Your task to perform on an android device: Go to ESPN.com Image 0: 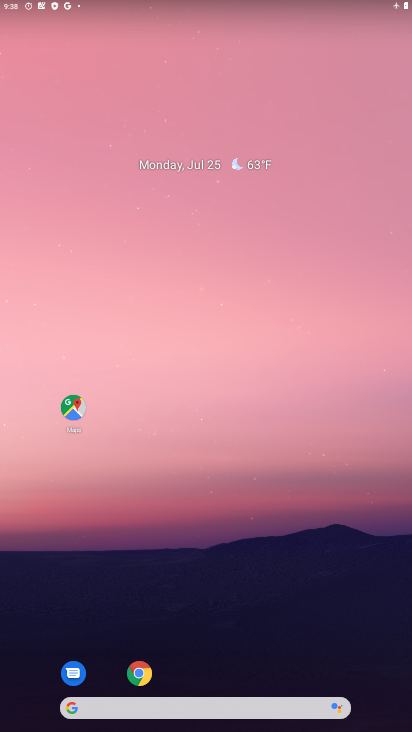
Step 0: drag from (181, 665) to (220, 159)
Your task to perform on an android device: Go to ESPN.com Image 1: 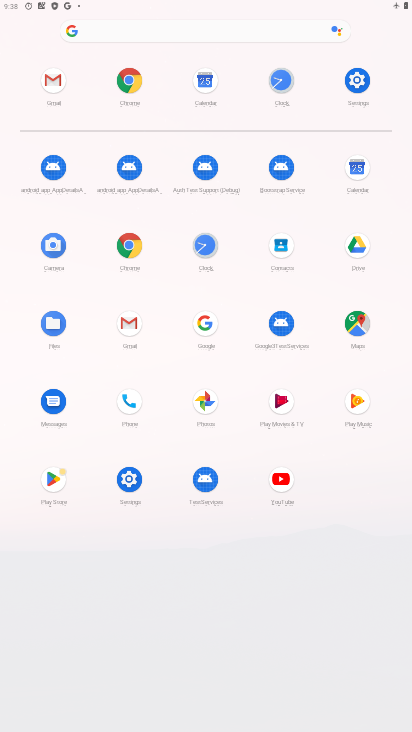
Step 1: click (126, 239)
Your task to perform on an android device: Go to ESPN.com Image 2: 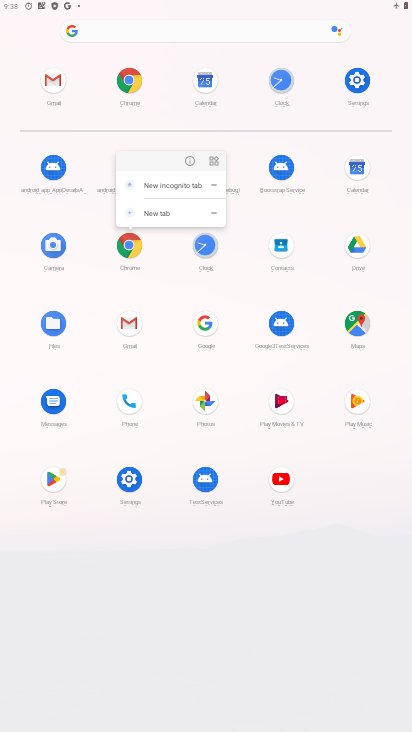
Step 2: click (187, 157)
Your task to perform on an android device: Go to ESPN.com Image 3: 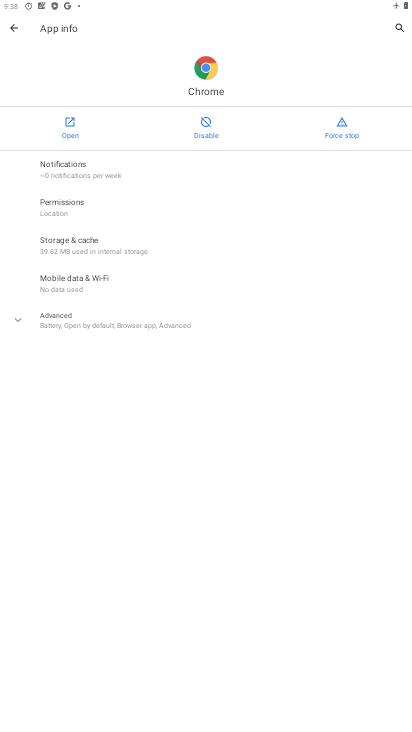
Step 3: click (72, 113)
Your task to perform on an android device: Go to ESPN.com Image 4: 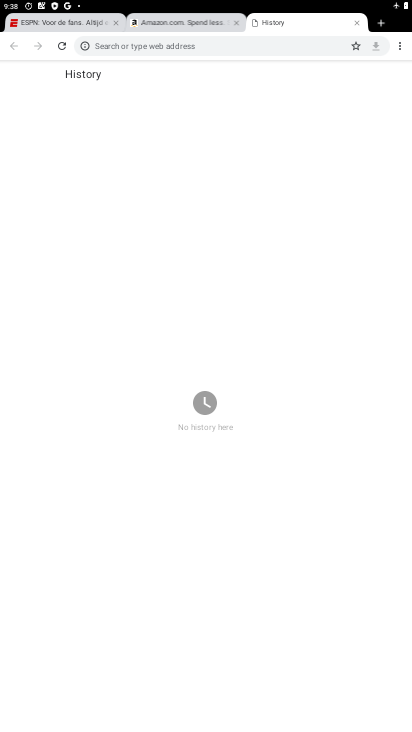
Step 4: click (206, 50)
Your task to perform on an android device: Go to ESPN.com Image 5: 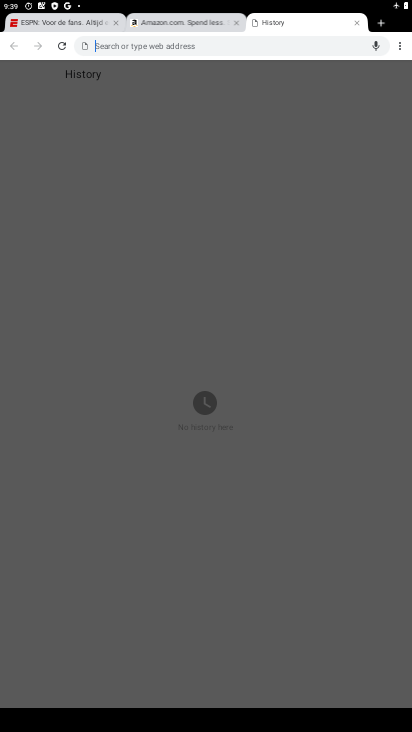
Step 5: type "espn.com"
Your task to perform on an android device: Go to ESPN.com Image 6: 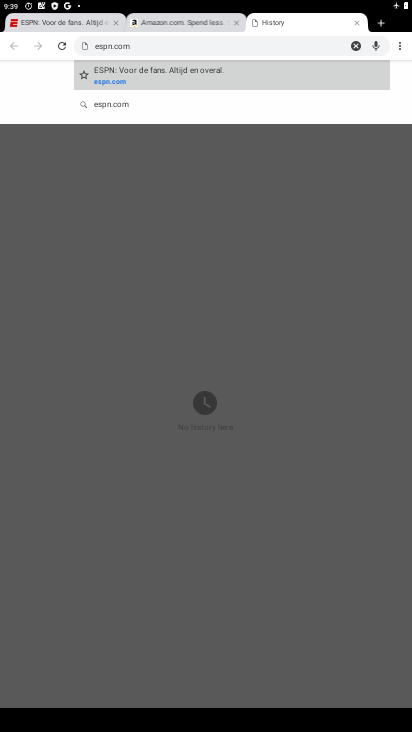
Step 6: click (132, 71)
Your task to perform on an android device: Go to ESPN.com Image 7: 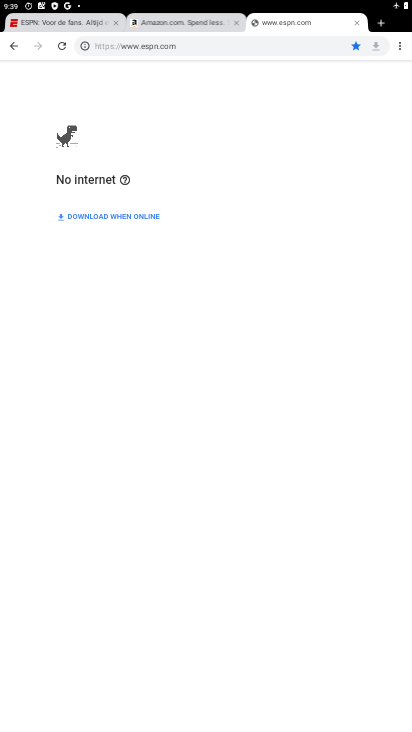
Step 7: task complete